Your task to perform on an android device: Set the phone to "Do not disturb". Image 0: 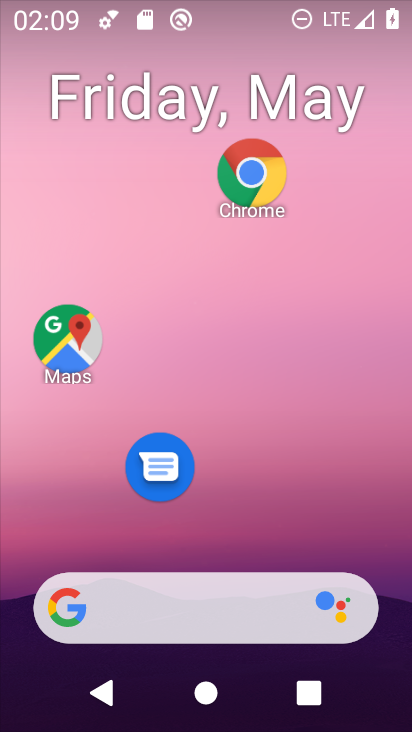
Step 0: drag from (232, 642) to (209, 167)
Your task to perform on an android device: Set the phone to "Do not disturb". Image 1: 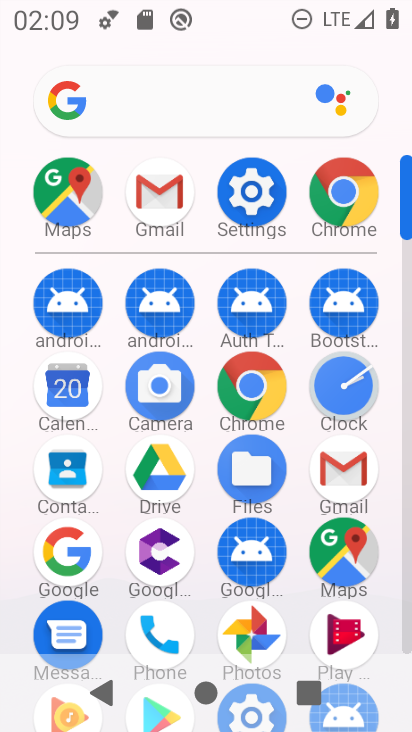
Step 1: click (226, 206)
Your task to perform on an android device: Set the phone to "Do not disturb". Image 2: 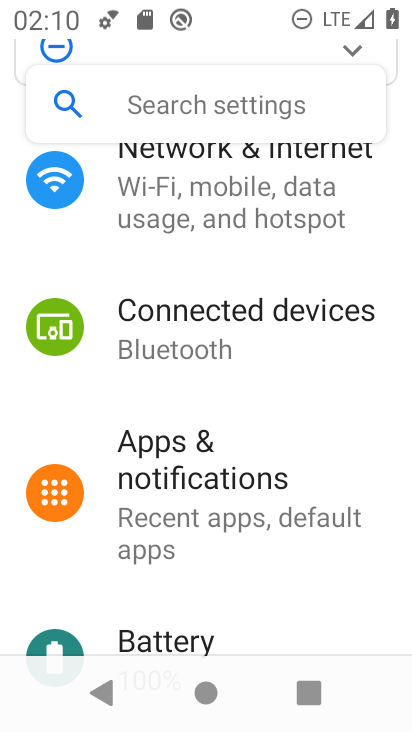
Step 2: click (159, 100)
Your task to perform on an android device: Set the phone to "Do not disturb". Image 3: 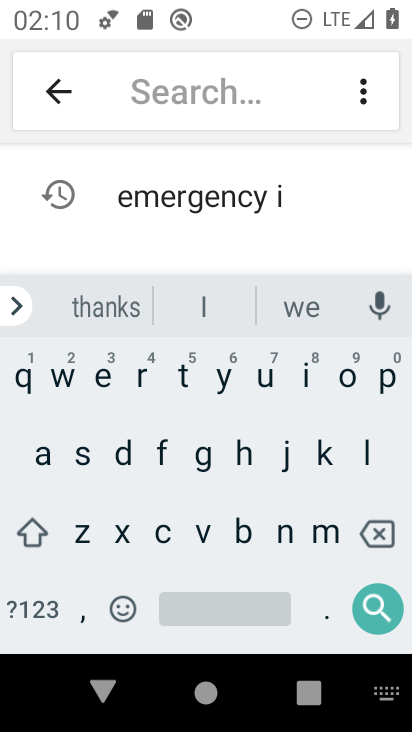
Step 3: click (128, 462)
Your task to perform on an android device: Set the phone to "Do not disturb". Image 4: 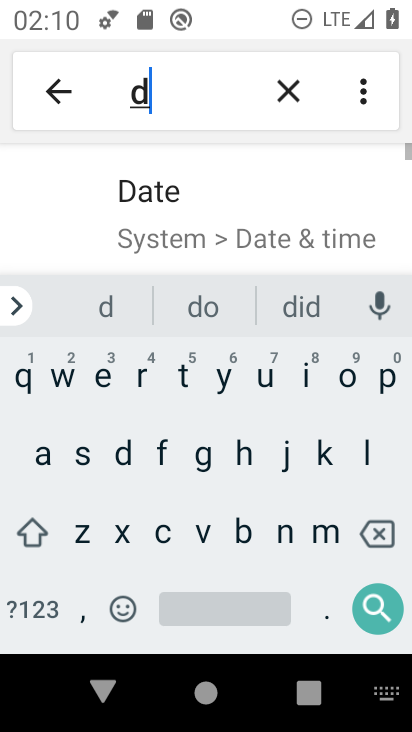
Step 4: click (292, 538)
Your task to perform on an android device: Set the phone to "Do not disturb". Image 5: 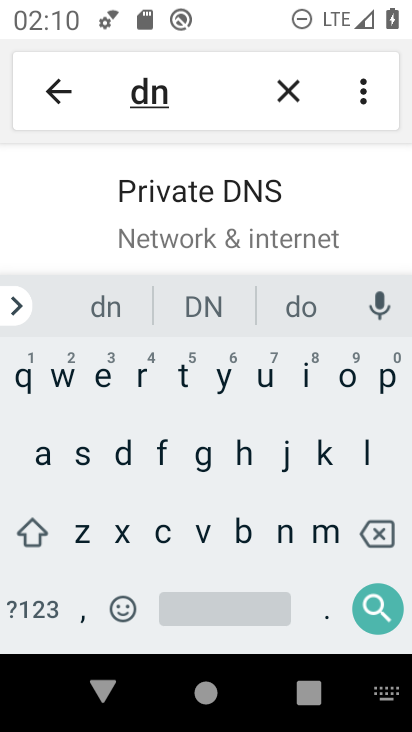
Step 5: click (121, 453)
Your task to perform on an android device: Set the phone to "Do not disturb". Image 6: 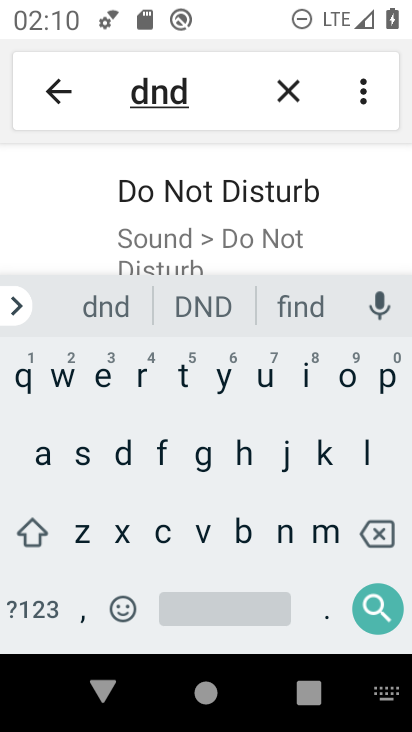
Step 6: click (208, 222)
Your task to perform on an android device: Set the phone to "Do not disturb". Image 7: 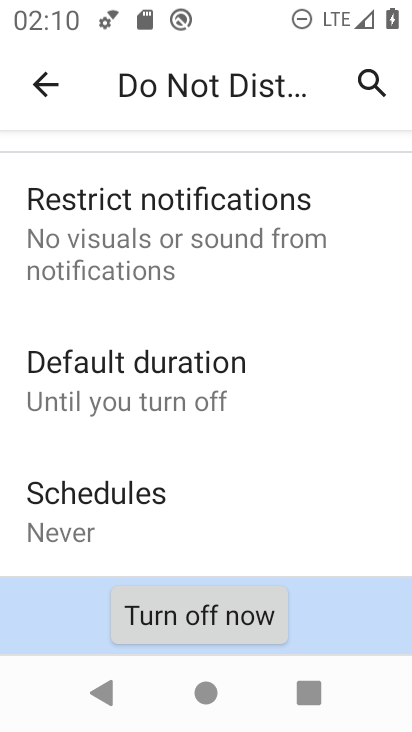
Step 7: click (209, 632)
Your task to perform on an android device: Set the phone to "Do not disturb". Image 8: 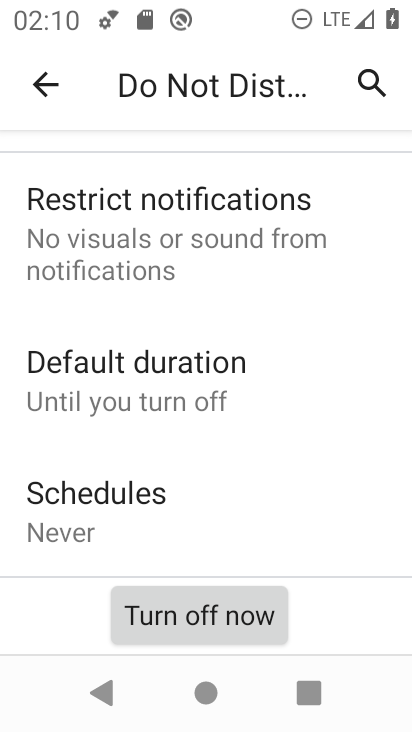
Step 8: task complete